Your task to perform on an android device: Search for vegetarian restaurants on Maps Image 0: 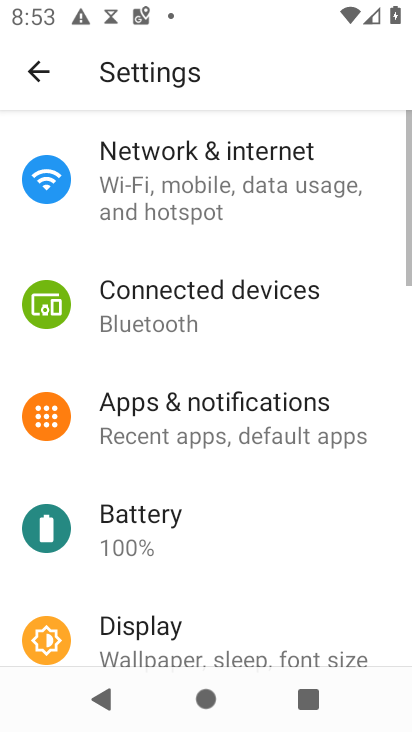
Step 0: press home button
Your task to perform on an android device: Search for vegetarian restaurants on Maps Image 1: 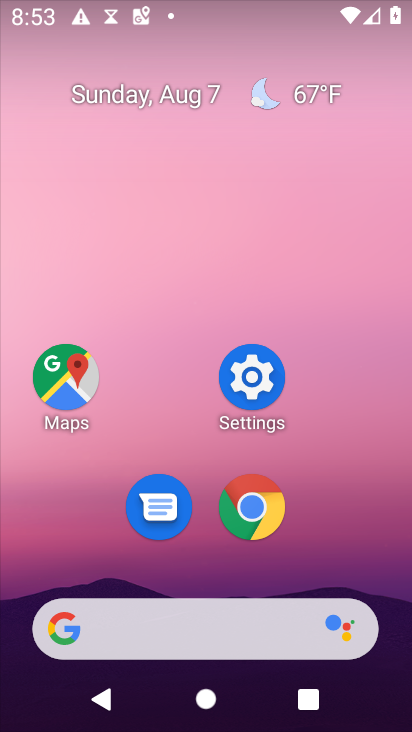
Step 1: click (64, 388)
Your task to perform on an android device: Search for vegetarian restaurants on Maps Image 2: 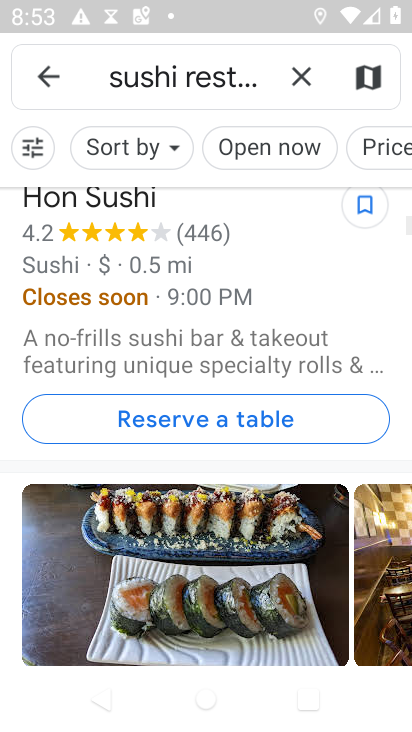
Step 2: click (301, 78)
Your task to perform on an android device: Search for vegetarian restaurants on Maps Image 3: 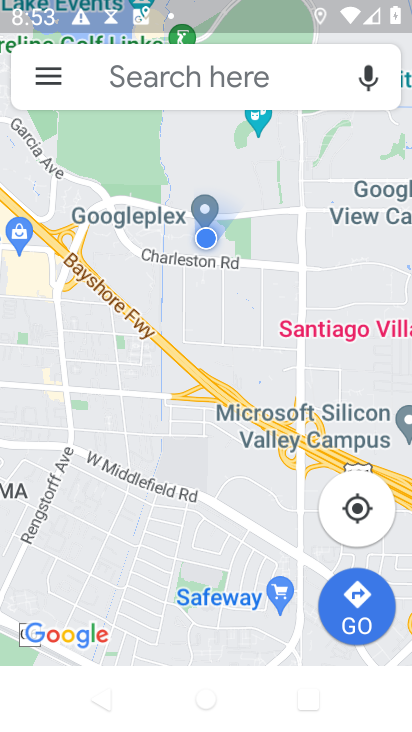
Step 3: click (180, 80)
Your task to perform on an android device: Search for vegetarian restaurants on Maps Image 4: 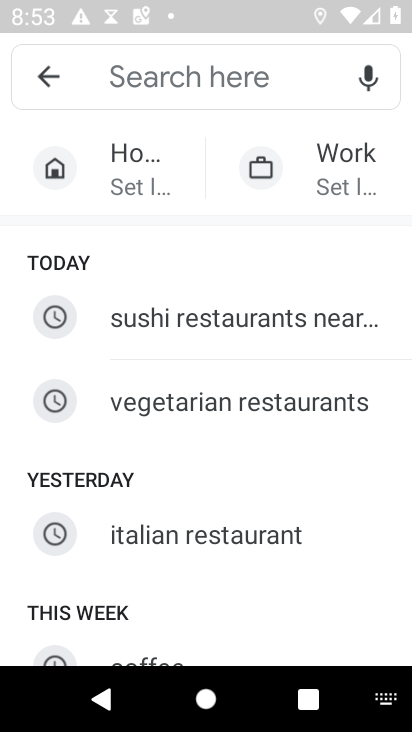
Step 4: click (201, 400)
Your task to perform on an android device: Search for vegetarian restaurants on Maps Image 5: 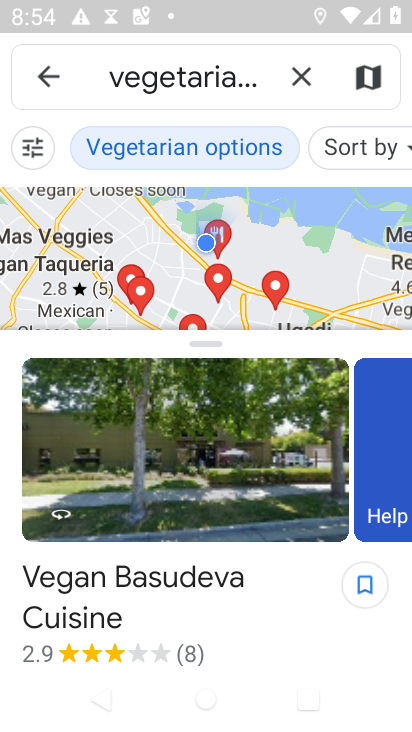
Step 5: task complete